Your task to perform on an android device: clear history in the chrome app Image 0: 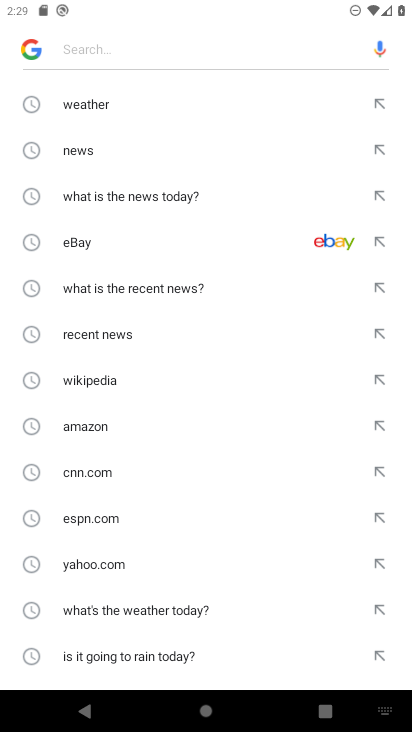
Step 0: press home button
Your task to perform on an android device: clear history in the chrome app Image 1: 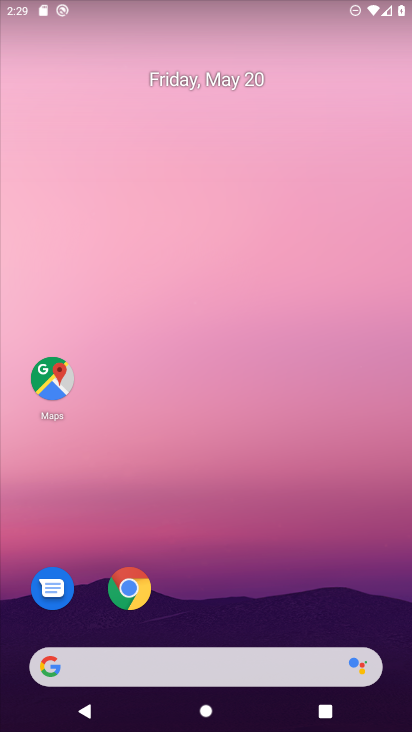
Step 1: click (127, 589)
Your task to perform on an android device: clear history in the chrome app Image 2: 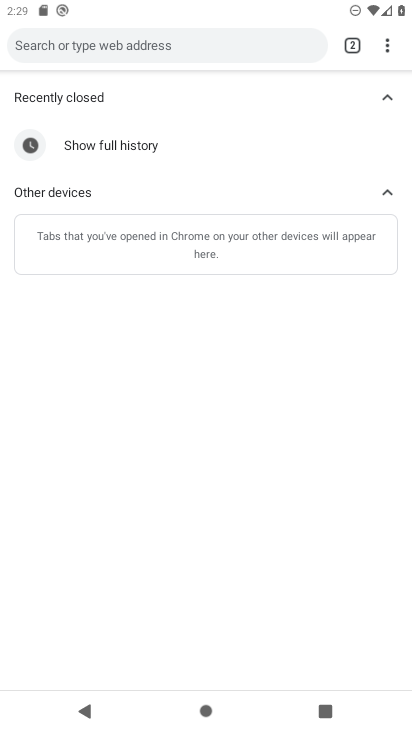
Step 2: click (388, 46)
Your task to perform on an android device: clear history in the chrome app Image 3: 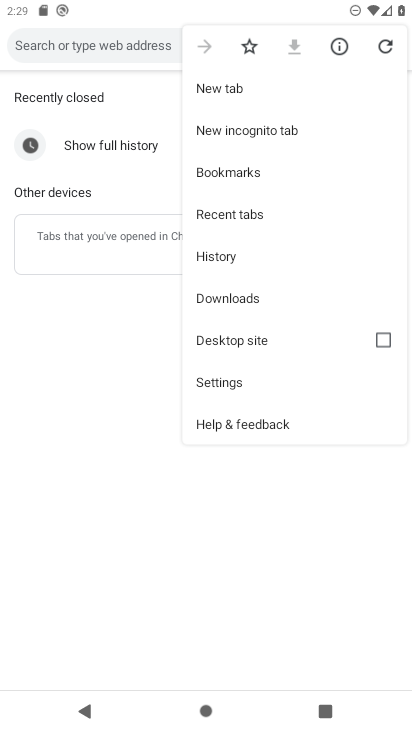
Step 3: click (219, 262)
Your task to perform on an android device: clear history in the chrome app Image 4: 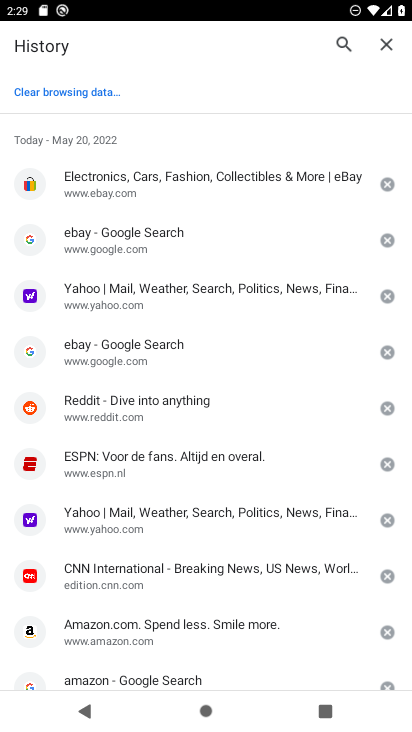
Step 4: click (62, 90)
Your task to perform on an android device: clear history in the chrome app Image 5: 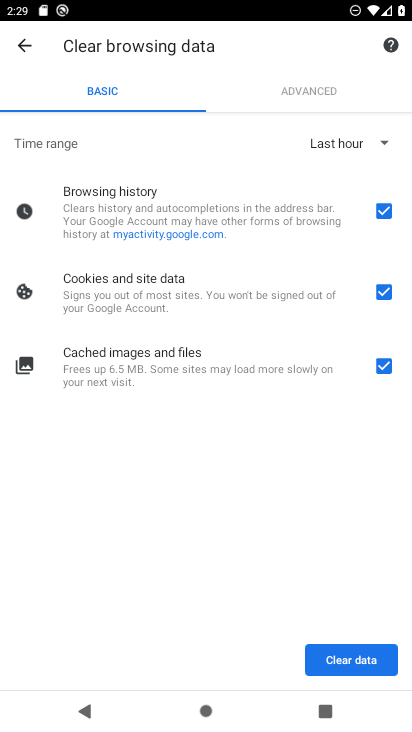
Step 5: click (378, 287)
Your task to perform on an android device: clear history in the chrome app Image 6: 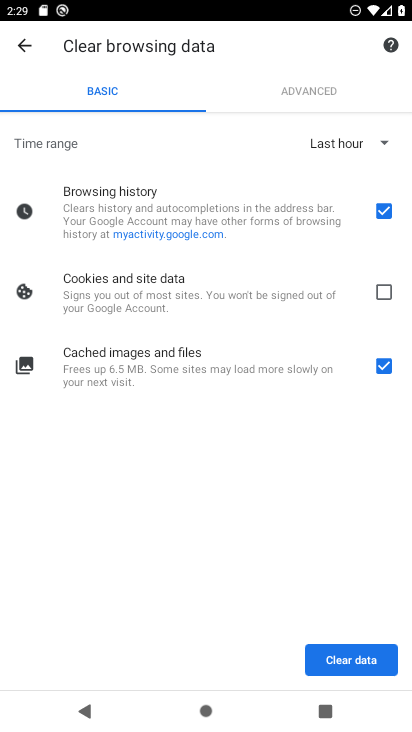
Step 6: click (381, 365)
Your task to perform on an android device: clear history in the chrome app Image 7: 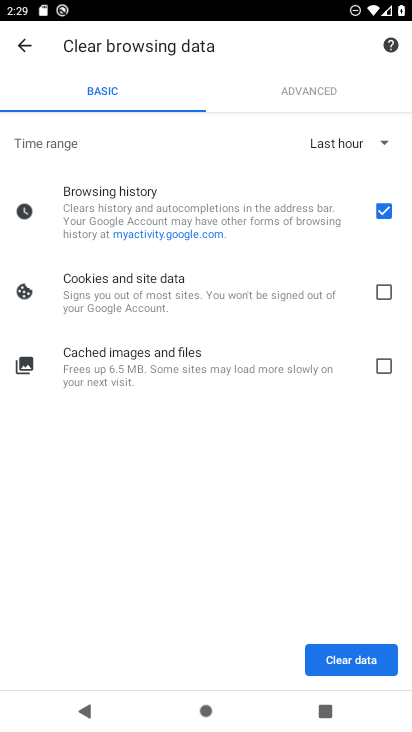
Step 7: click (355, 658)
Your task to perform on an android device: clear history in the chrome app Image 8: 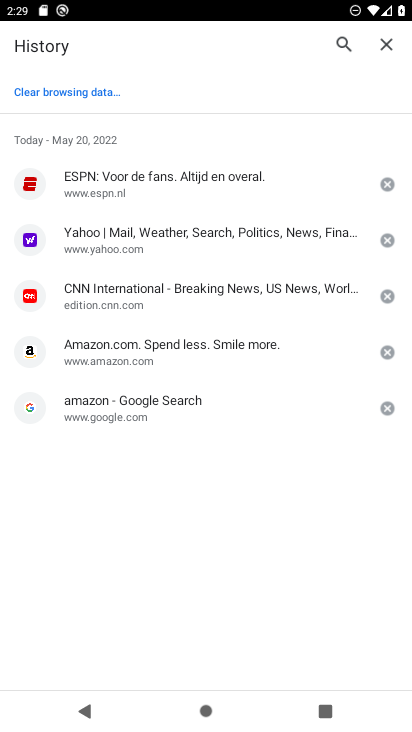
Step 8: task complete